Your task to perform on an android device: Go to Android settings Image 0: 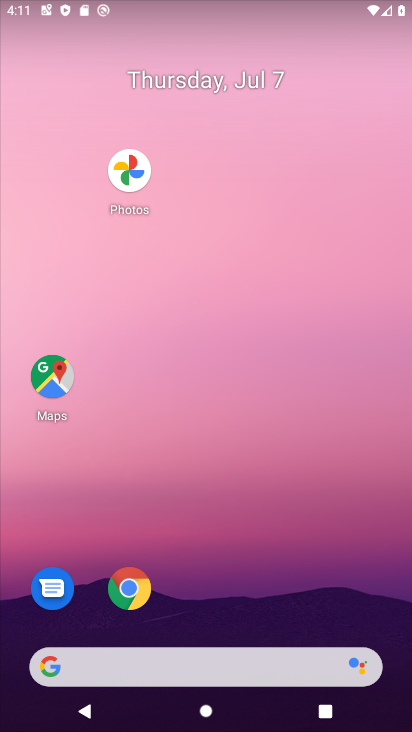
Step 0: drag from (266, 564) to (399, 607)
Your task to perform on an android device: Go to Android settings Image 1: 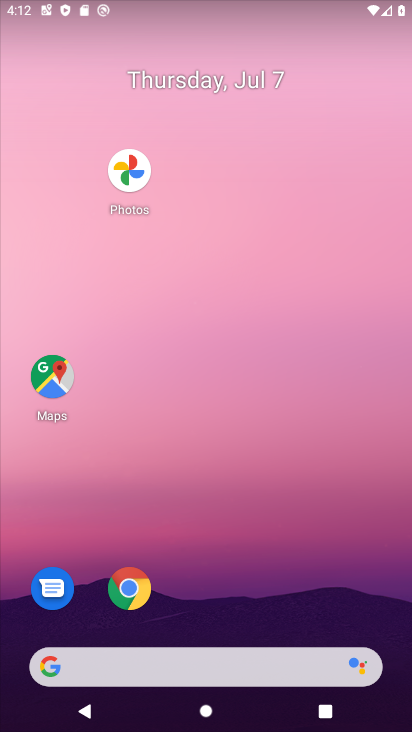
Step 1: drag from (235, 664) to (175, 234)
Your task to perform on an android device: Go to Android settings Image 2: 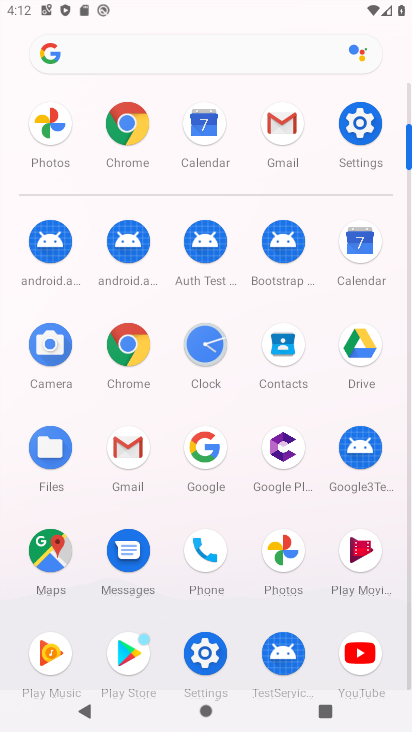
Step 2: drag from (282, 544) to (86, 98)
Your task to perform on an android device: Go to Android settings Image 3: 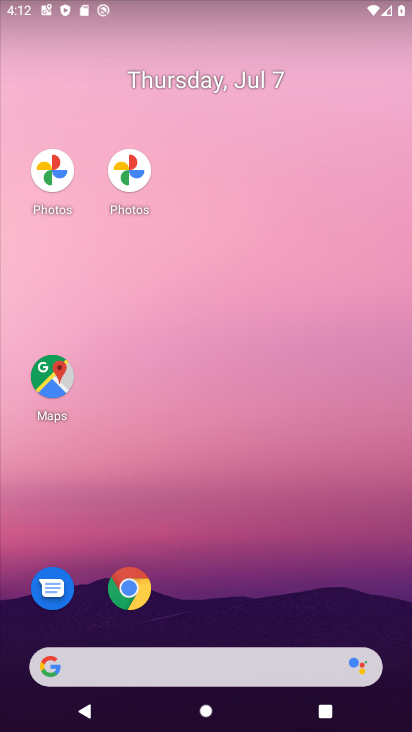
Step 3: click (259, 64)
Your task to perform on an android device: Go to Android settings Image 4: 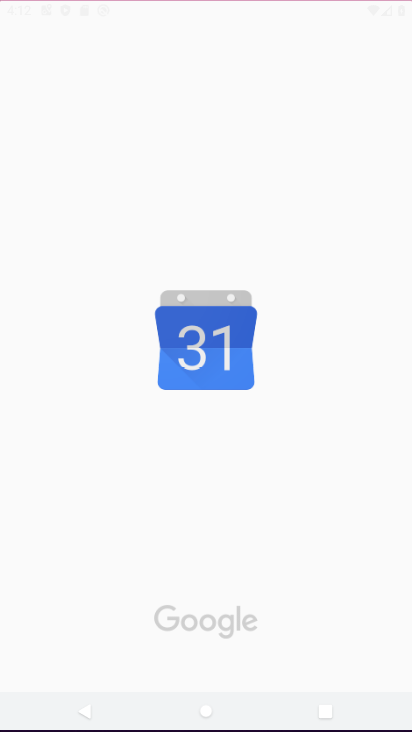
Step 4: drag from (212, 371) to (117, 98)
Your task to perform on an android device: Go to Android settings Image 5: 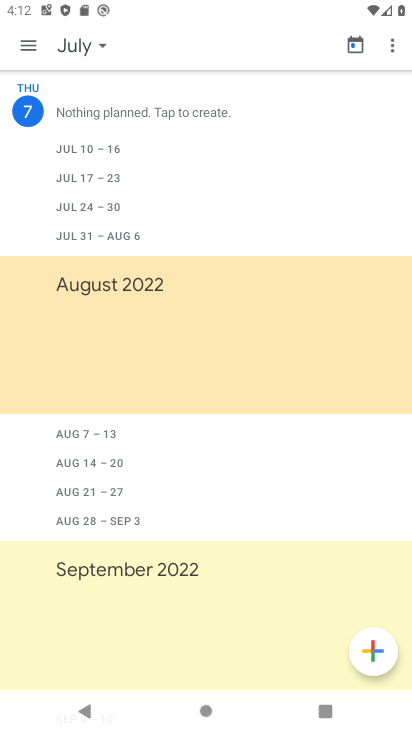
Step 5: drag from (172, 258) to (117, 43)
Your task to perform on an android device: Go to Android settings Image 6: 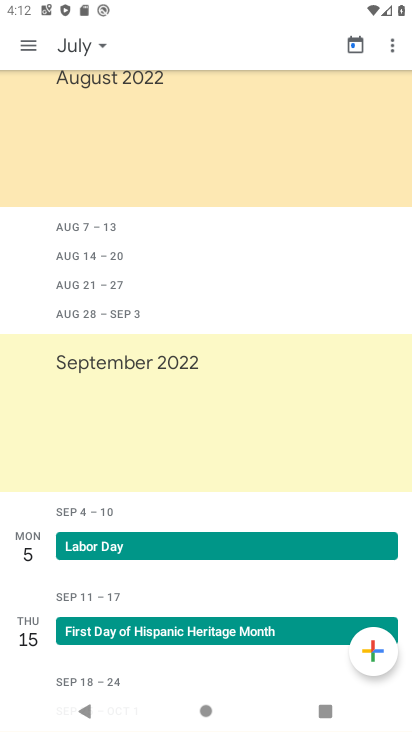
Step 6: click (20, 62)
Your task to perform on an android device: Go to Android settings Image 7: 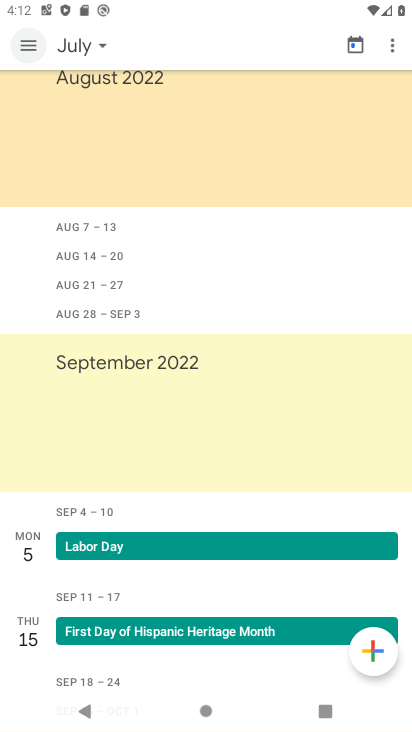
Step 7: click (25, 51)
Your task to perform on an android device: Go to Android settings Image 8: 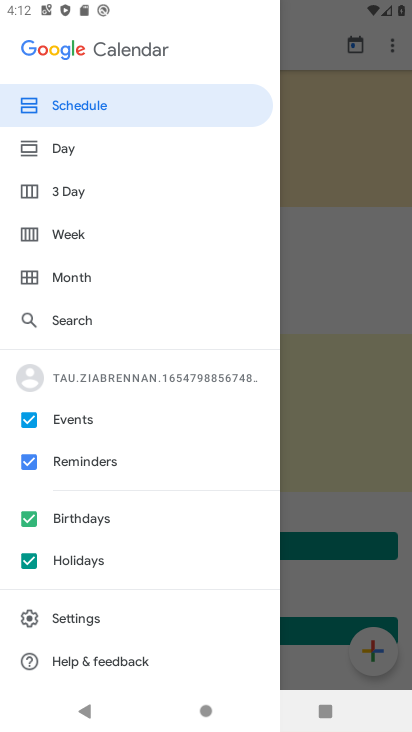
Step 8: drag from (156, 180) to (252, 156)
Your task to perform on an android device: Go to Android settings Image 9: 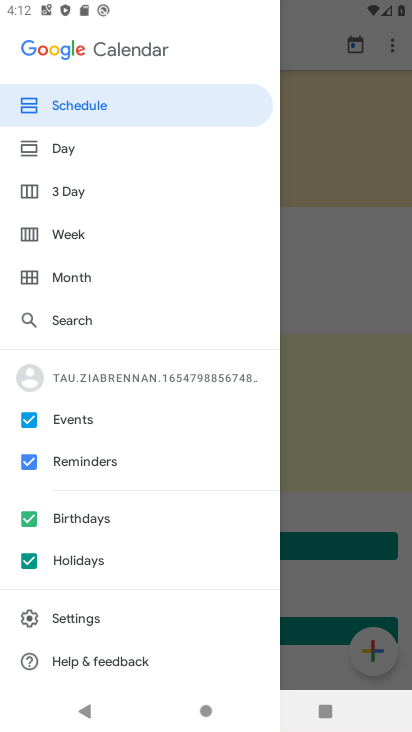
Step 9: drag from (182, 376) to (182, 342)
Your task to perform on an android device: Go to Android settings Image 10: 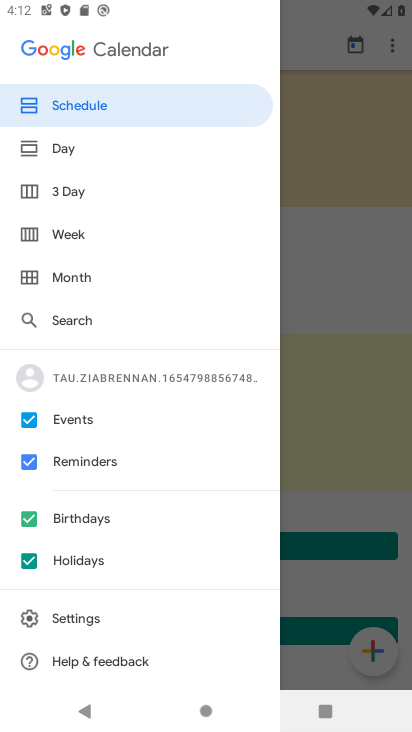
Step 10: click (210, 220)
Your task to perform on an android device: Go to Android settings Image 11: 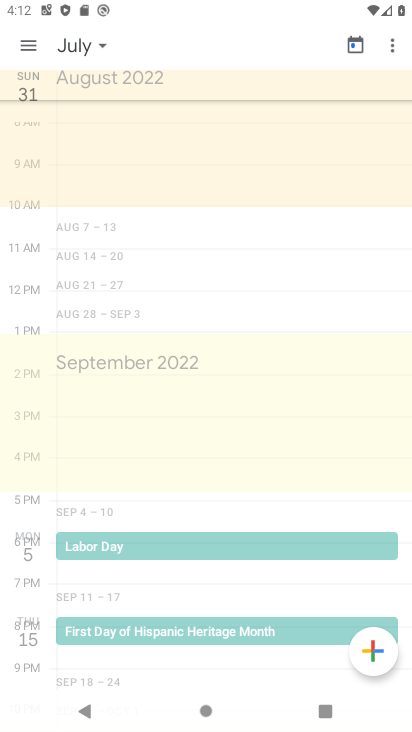
Step 11: press back button
Your task to perform on an android device: Go to Android settings Image 12: 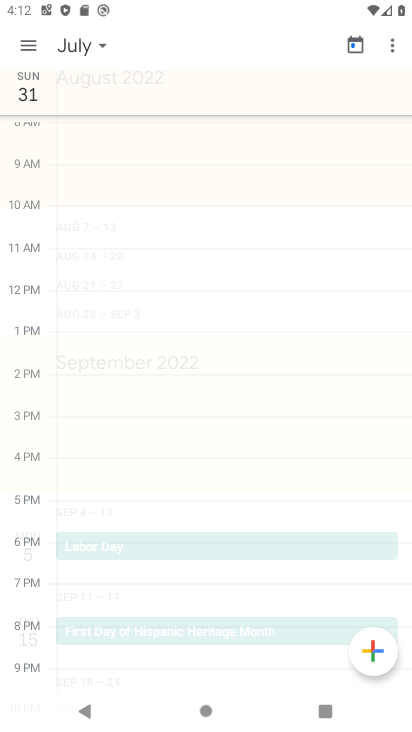
Step 12: press home button
Your task to perform on an android device: Go to Android settings Image 13: 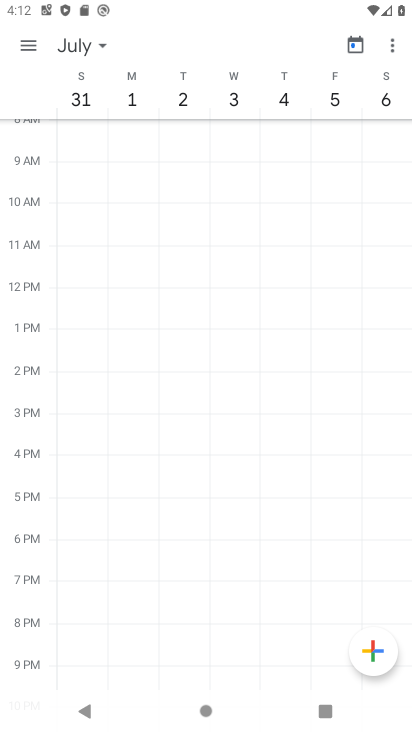
Step 13: click (117, 180)
Your task to perform on an android device: Go to Android settings Image 14: 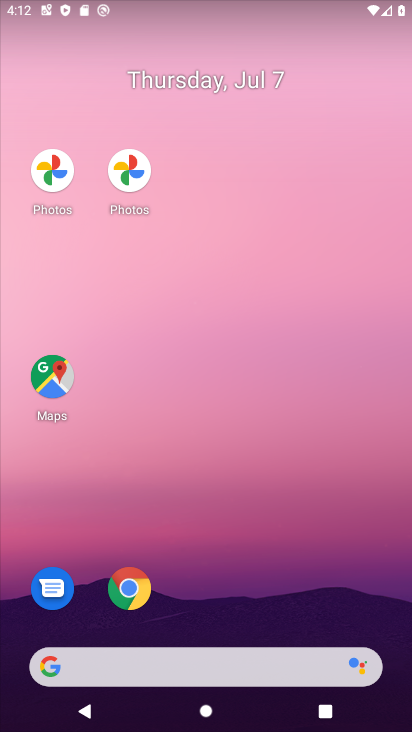
Step 14: press back button
Your task to perform on an android device: Go to Android settings Image 15: 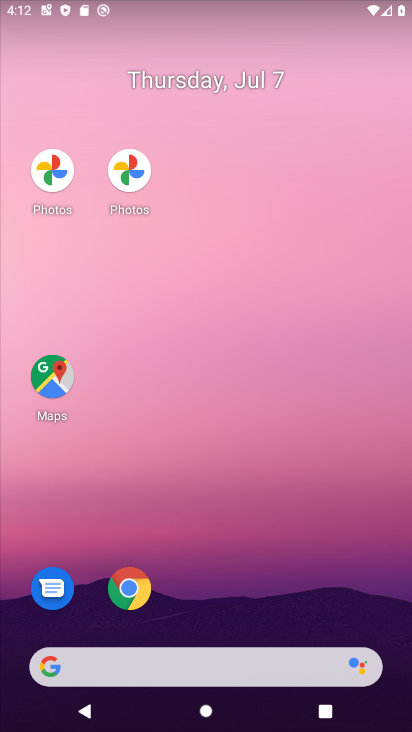
Step 15: drag from (253, 631) to (178, 205)
Your task to perform on an android device: Go to Android settings Image 16: 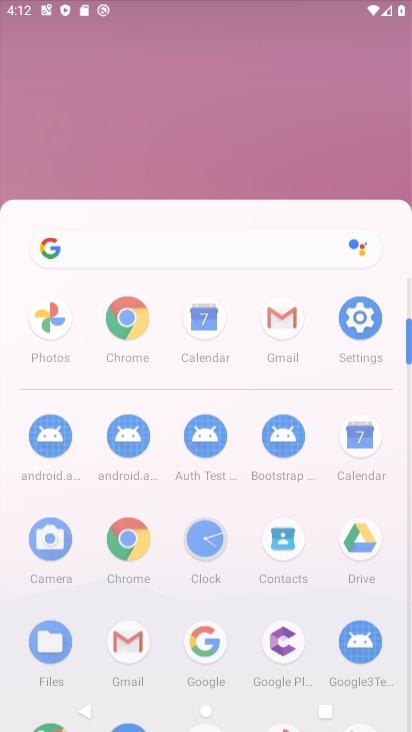
Step 16: drag from (227, 462) to (197, 86)
Your task to perform on an android device: Go to Android settings Image 17: 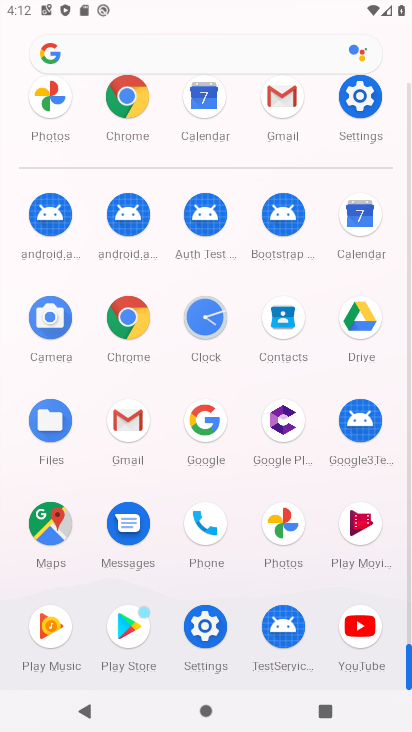
Step 17: click (202, 639)
Your task to perform on an android device: Go to Android settings Image 18: 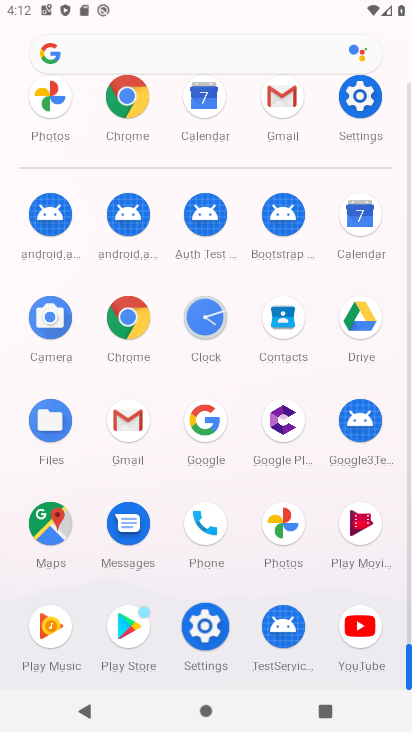
Step 18: click (210, 632)
Your task to perform on an android device: Go to Android settings Image 19: 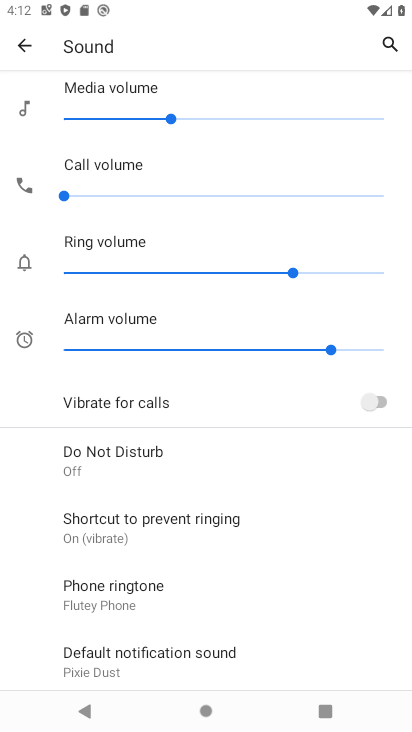
Step 19: click (14, 47)
Your task to perform on an android device: Go to Android settings Image 20: 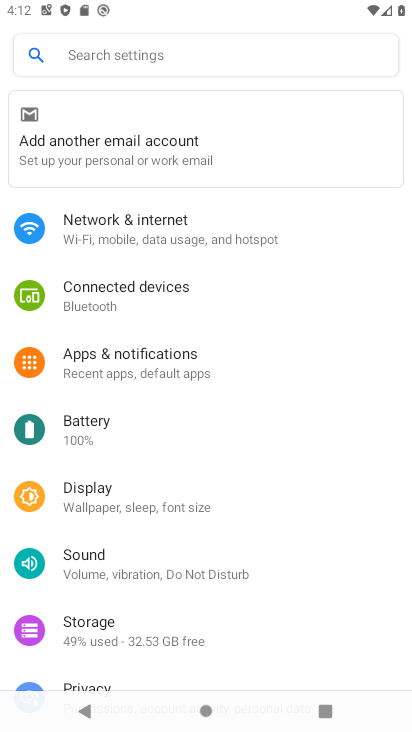
Step 20: drag from (121, 630) to (103, 212)
Your task to perform on an android device: Go to Android settings Image 21: 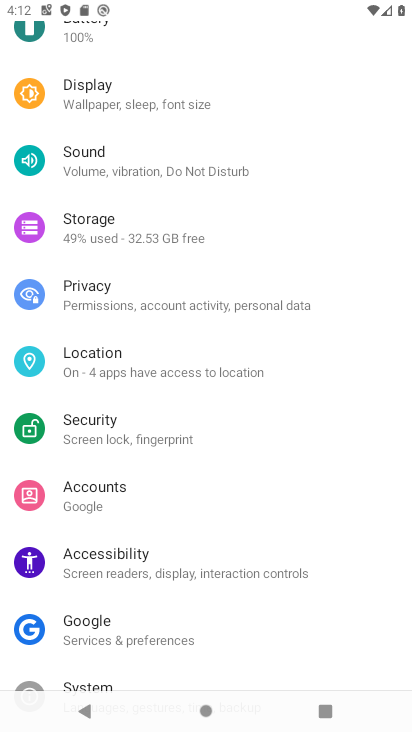
Step 21: drag from (138, 470) to (135, 155)
Your task to perform on an android device: Go to Android settings Image 22: 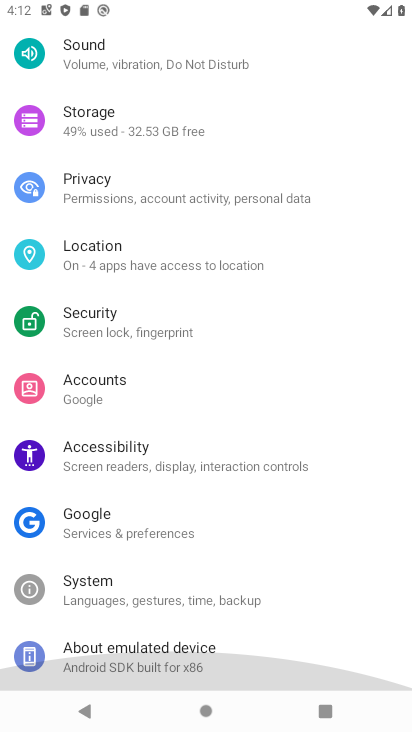
Step 22: drag from (195, 529) to (191, 114)
Your task to perform on an android device: Go to Android settings Image 23: 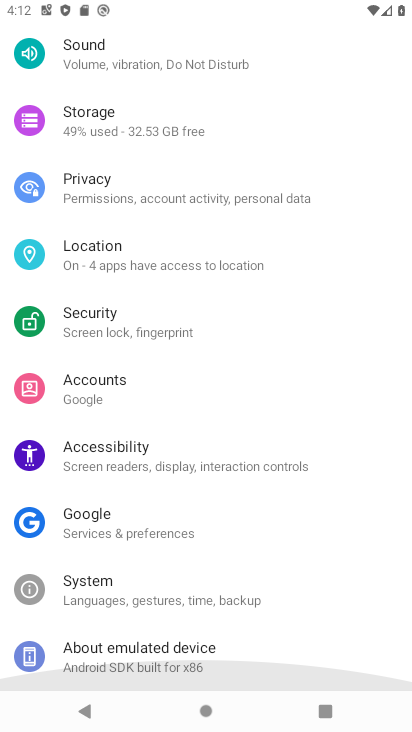
Step 23: drag from (156, 521) to (156, 285)
Your task to perform on an android device: Go to Android settings Image 24: 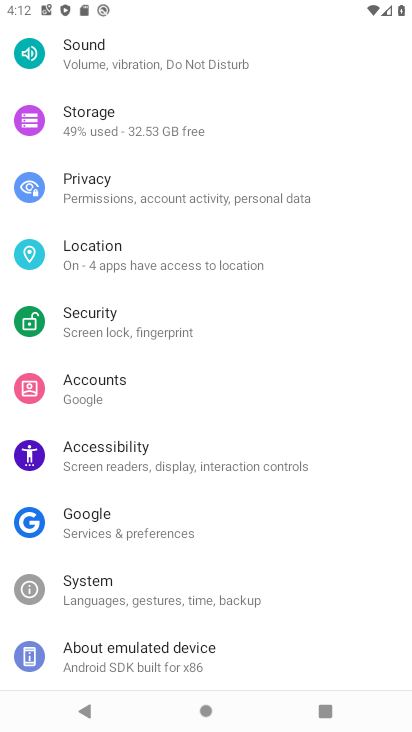
Step 24: click (121, 666)
Your task to perform on an android device: Go to Android settings Image 25: 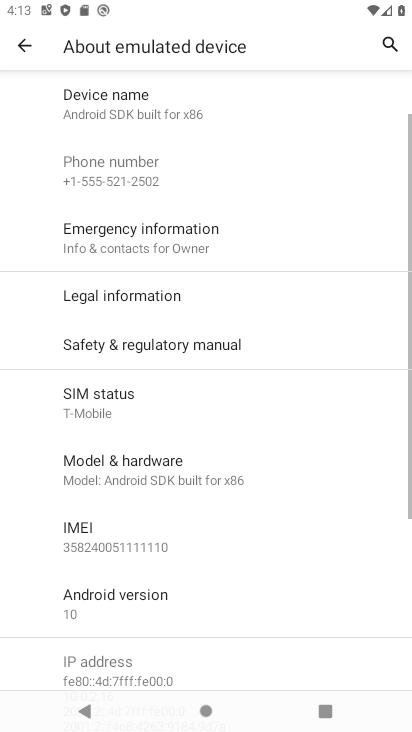
Step 25: task complete